Your task to perform on an android device: Add asus rog to the cart on costco.com, then select checkout. Image 0: 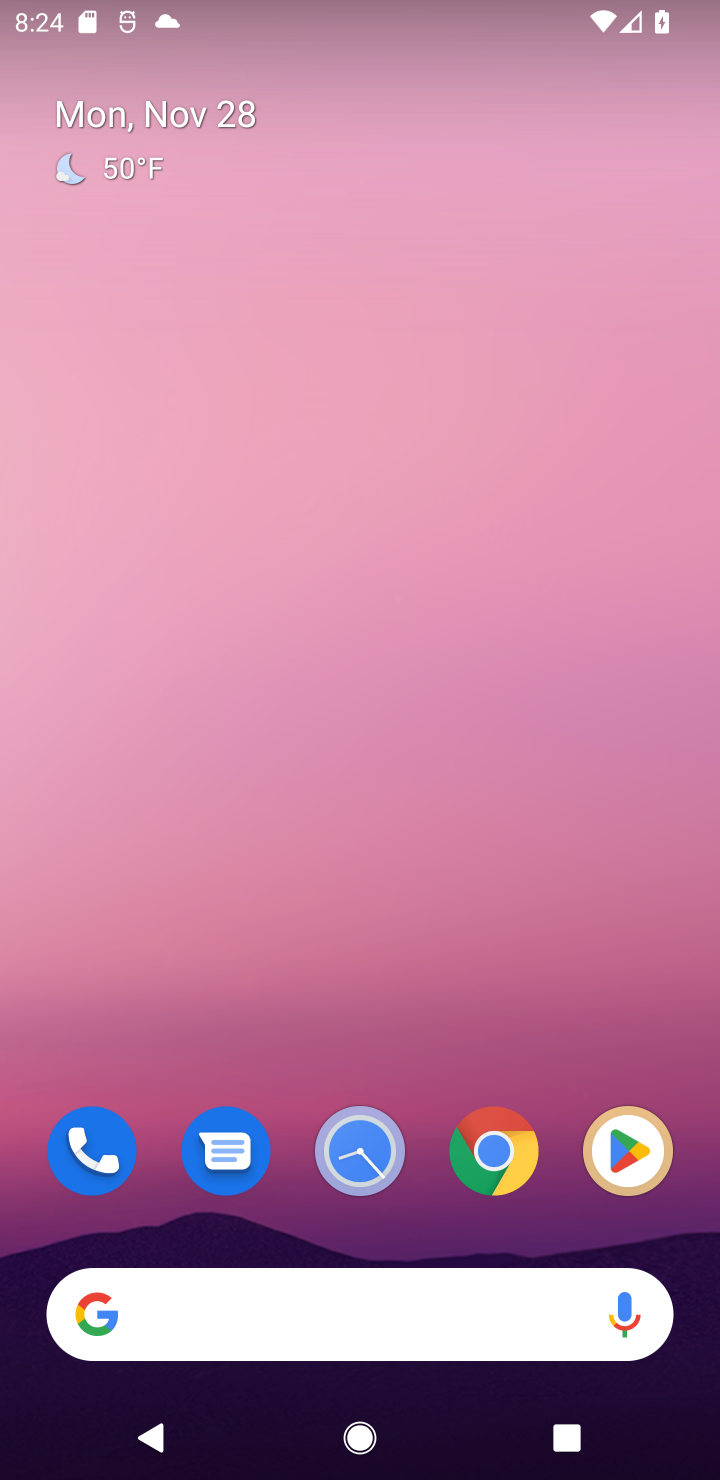
Step 0: click (277, 1323)
Your task to perform on an android device: Add asus rog to the cart on costco.com, then select checkout. Image 1: 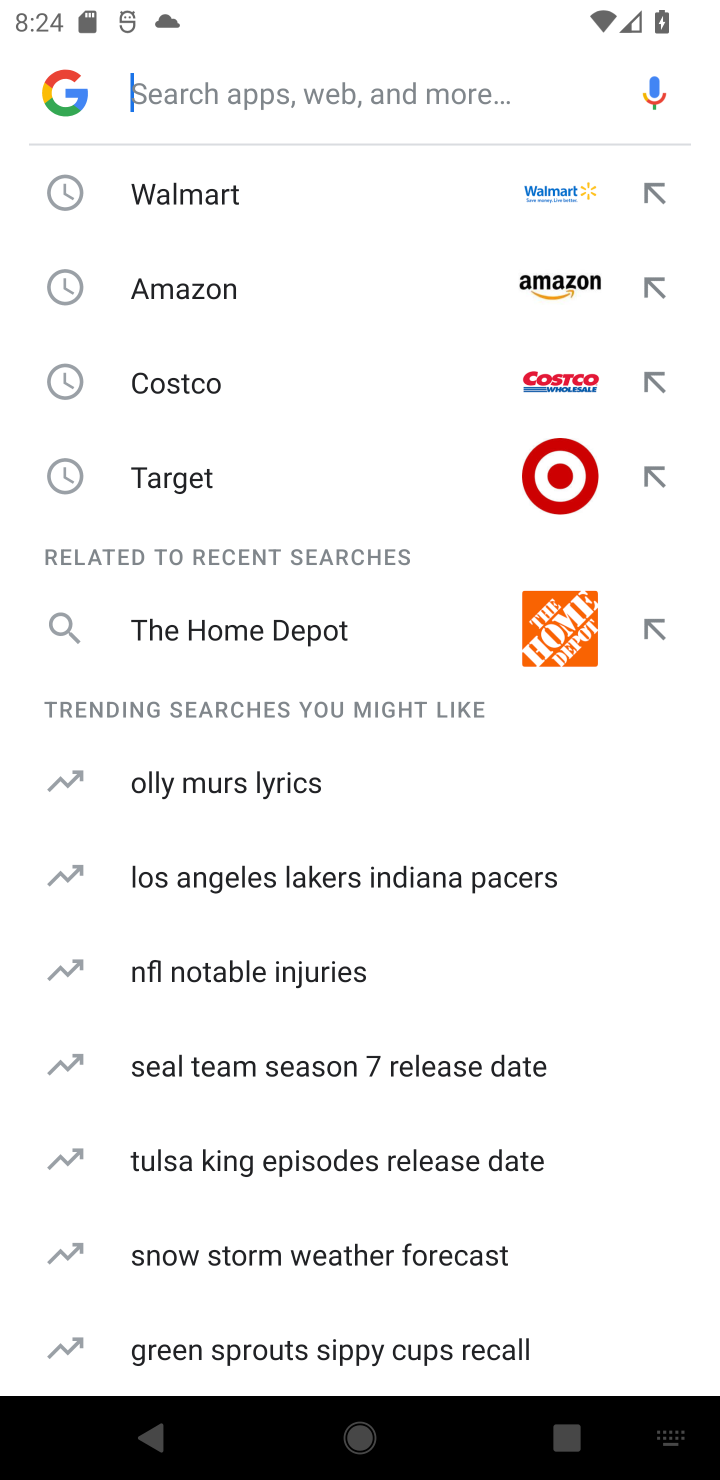
Step 1: type "costco"
Your task to perform on an android device: Add asus rog to the cart on costco.com, then select checkout. Image 2: 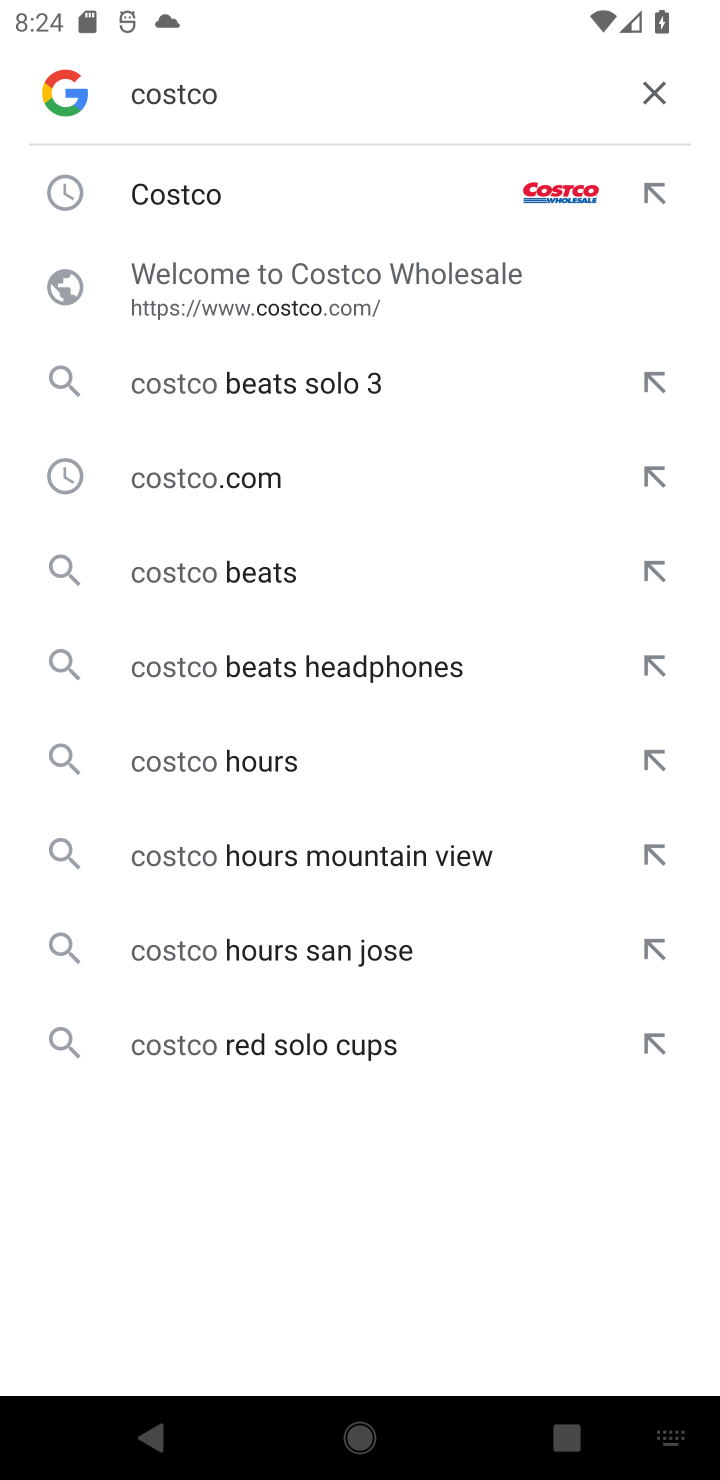
Step 2: click (253, 155)
Your task to perform on an android device: Add asus rog to the cart on costco.com, then select checkout. Image 3: 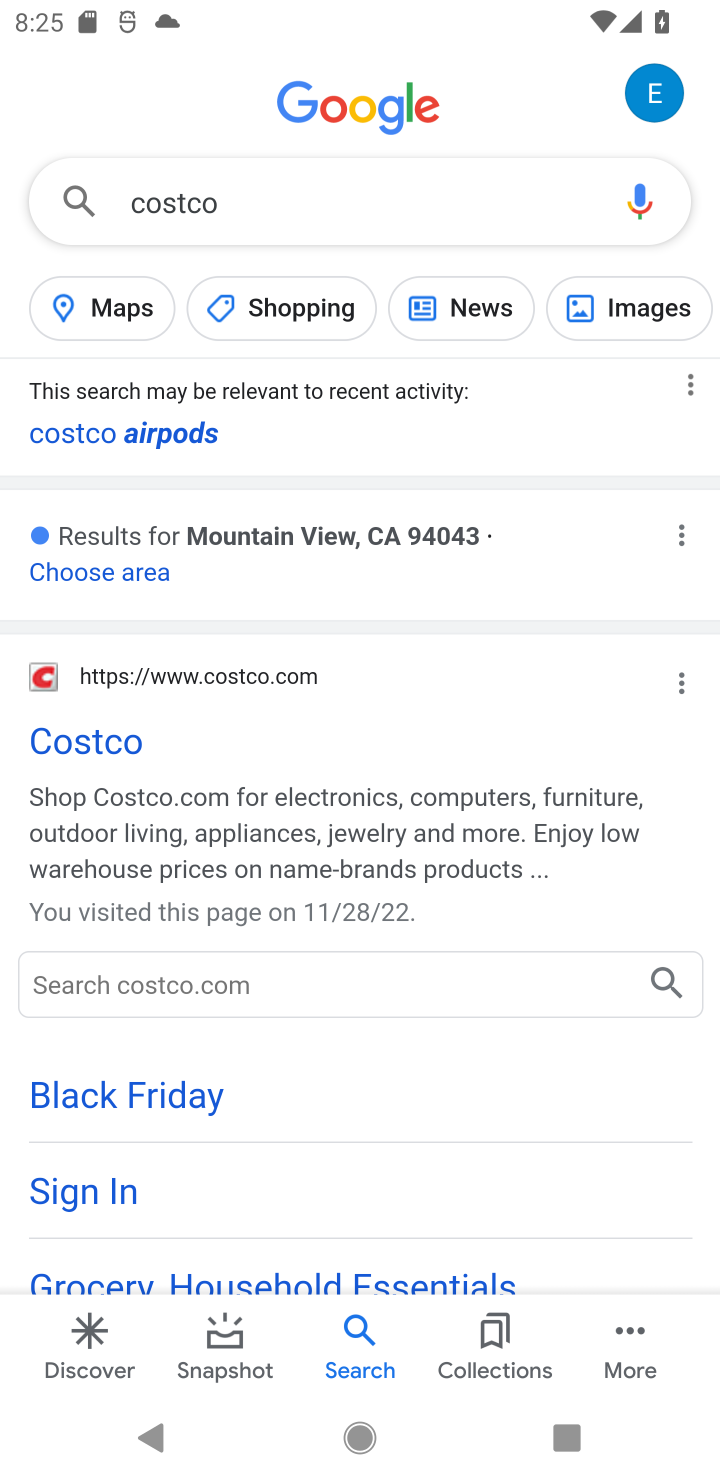
Step 3: click (78, 734)
Your task to perform on an android device: Add asus rog to the cart on costco.com, then select checkout. Image 4: 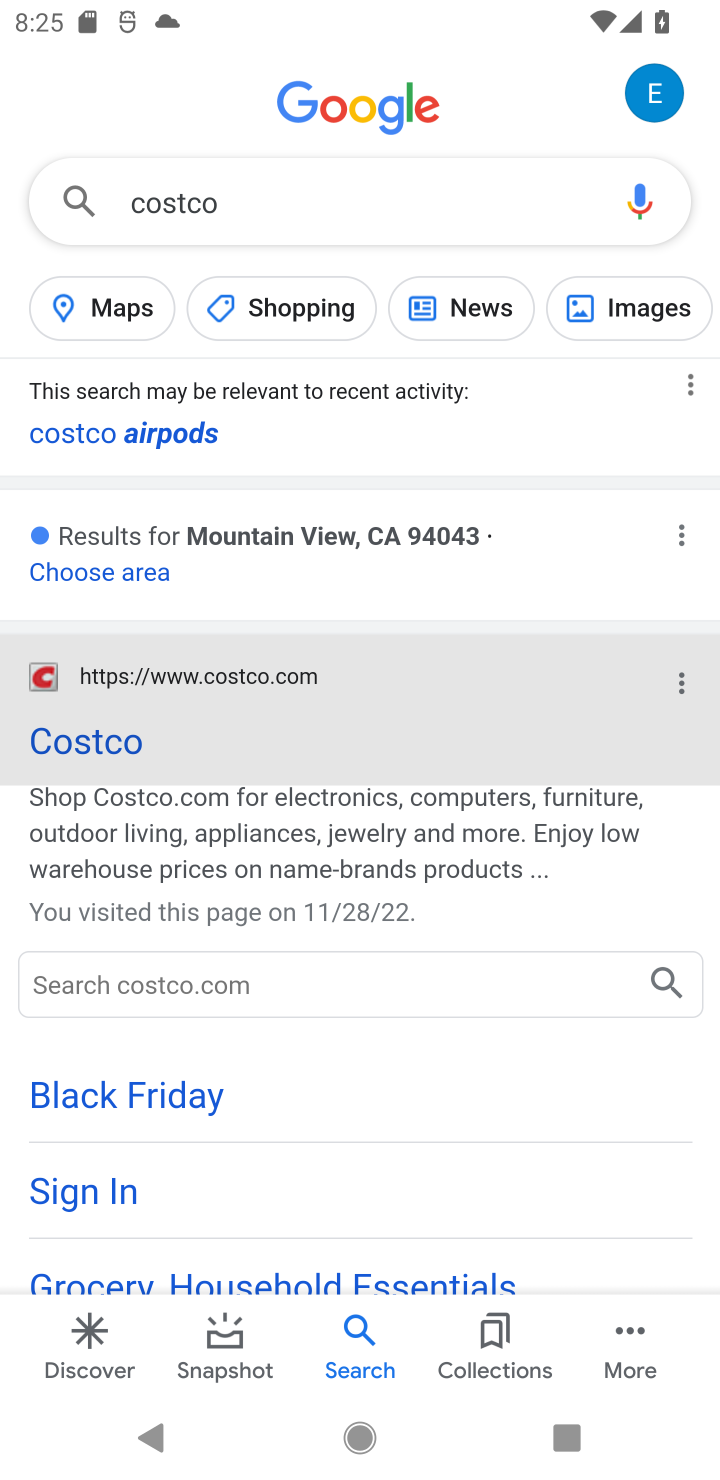
Step 4: task complete